Your task to perform on an android device: Open Yahoo.com Image 0: 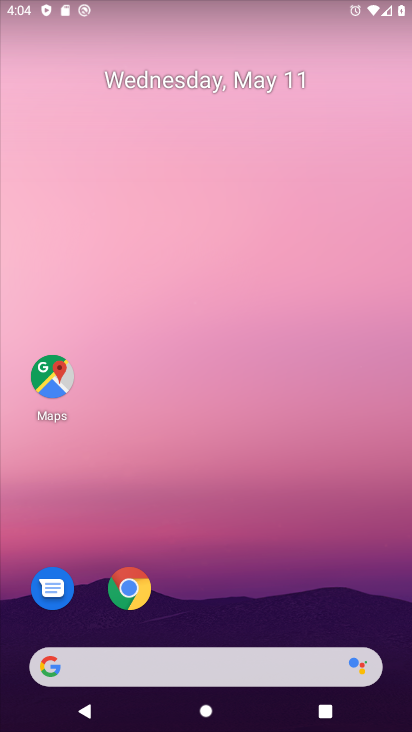
Step 0: drag from (334, 591) to (310, 159)
Your task to perform on an android device: Open Yahoo.com Image 1: 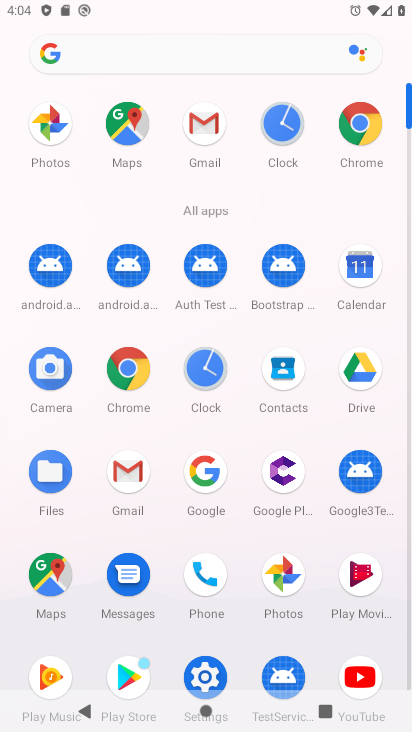
Step 1: click (347, 139)
Your task to perform on an android device: Open Yahoo.com Image 2: 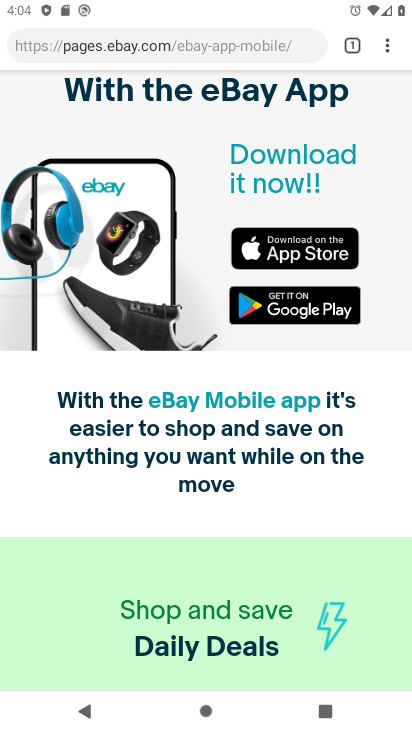
Step 2: click (196, 60)
Your task to perform on an android device: Open Yahoo.com Image 3: 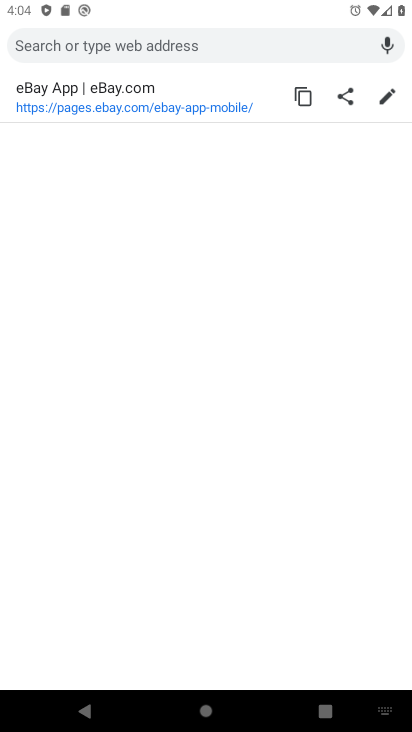
Step 3: type "yahoo.com"
Your task to perform on an android device: Open Yahoo.com Image 4: 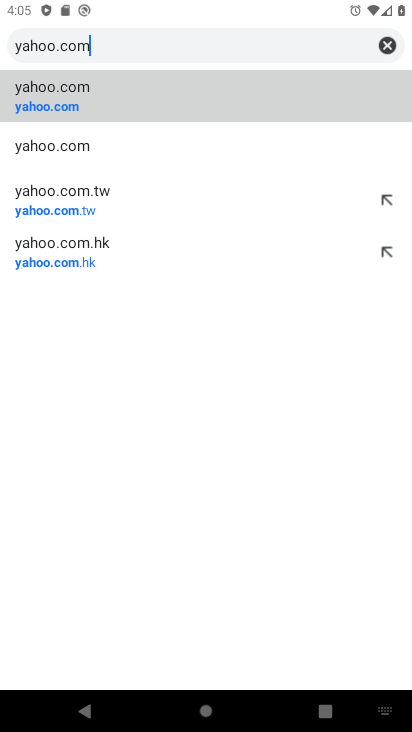
Step 4: click (25, 155)
Your task to perform on an android device: Open Yahoo.com Image 5: 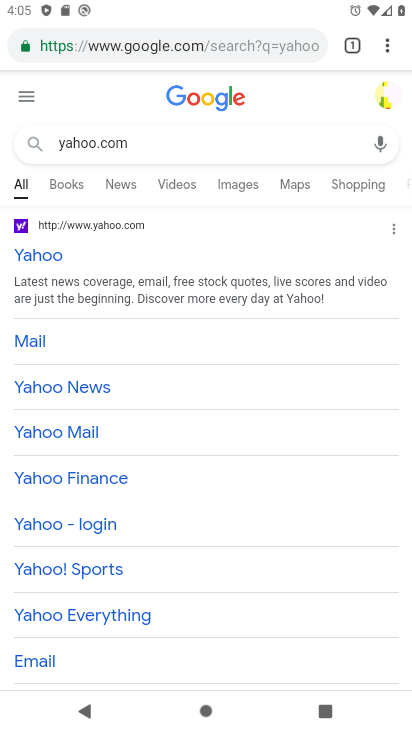
Step 5: click (13, 243)
Your task to perform on an android device: Open Yahoo.com Image 6: 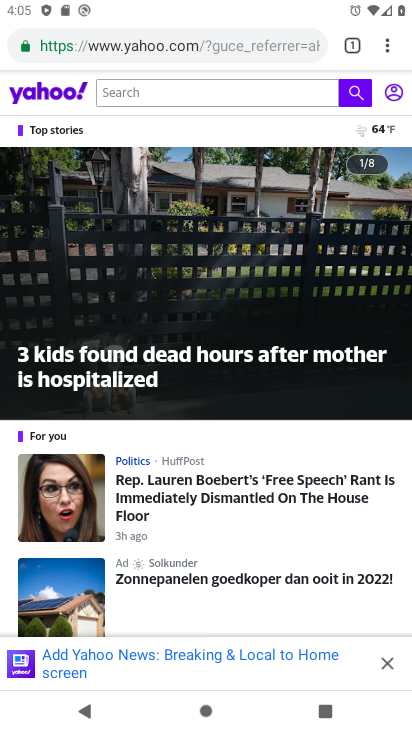
Step 6: task complete